Your task to perform on an android device: set the timer Image 0: 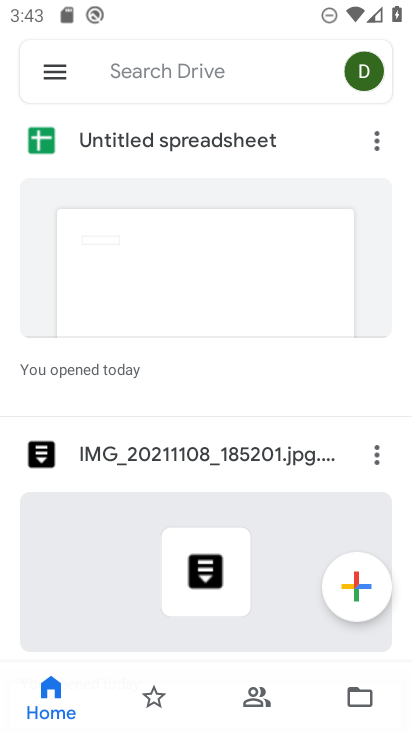
Step 0: press home button
Your task to perform on an android device: set the timer Image 1: 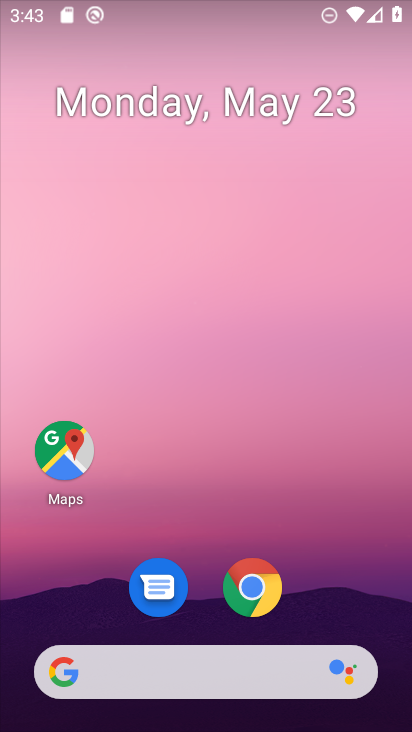
Step 1: drag from (201, 624) to (201, 3)
Your task to perform on an android device: set the timer Image 2: 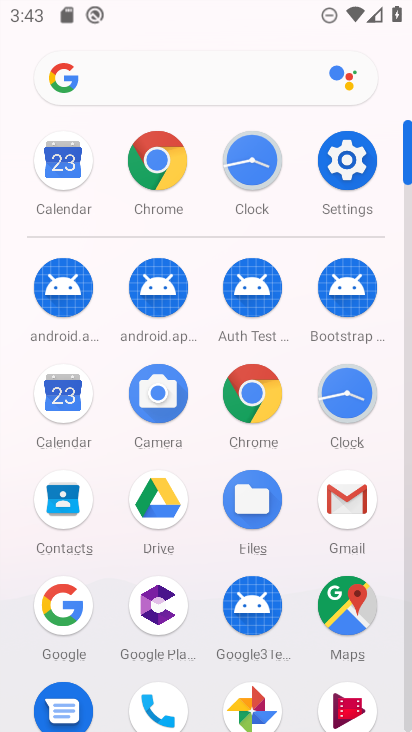
Step 2: click (247, 177)
Your task to perform on an android device: set the timer Image 3: 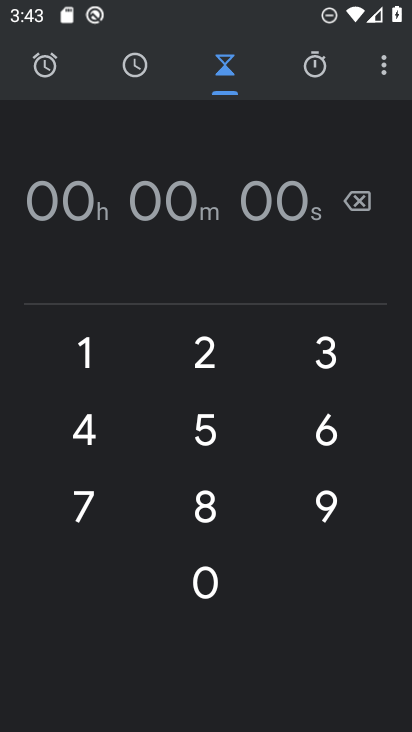
Step 3: click (196, 441)
Your task to perform on an android device: set the timer Image 4: 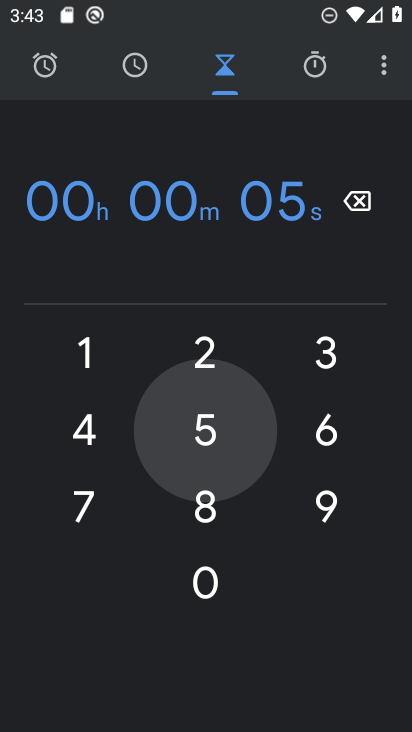
Step 4: click (330, 445)
Your task to perform on an android device: set the timer Image 5: 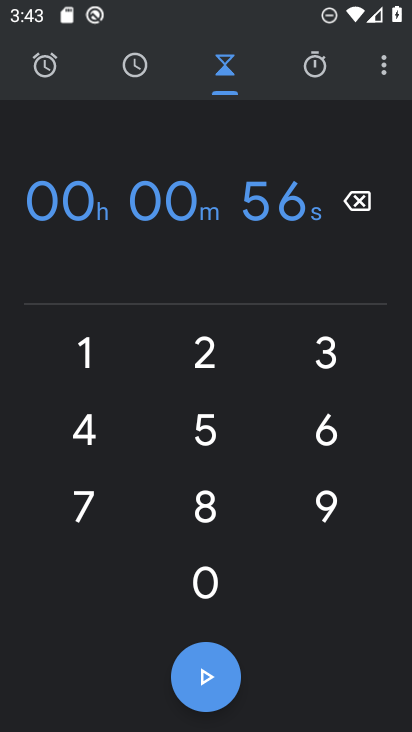
Step 5: click (324, 442)
Your task to perform on an android device: set the timer Image 6: 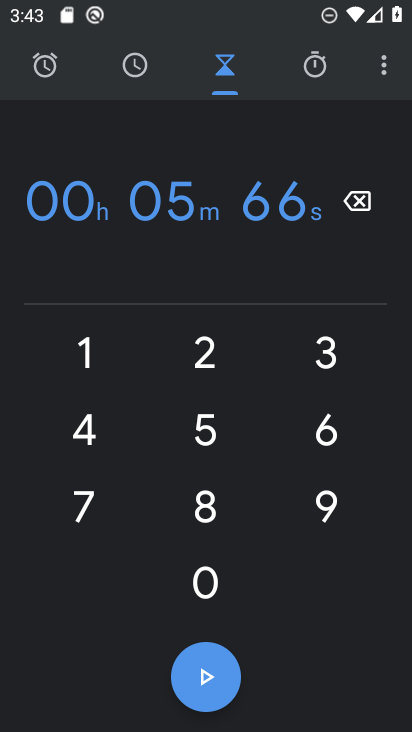
Step 6: click (207, 676)
Your task to perform on an android device: set the timer Image 7: 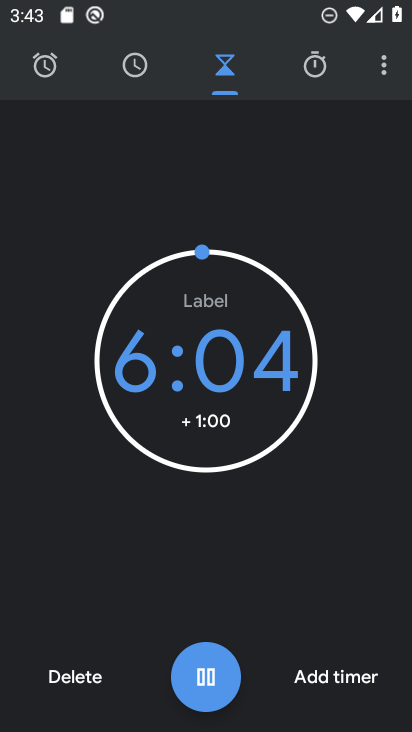
Step 7: task complete